Your task to perform on an android device: toggle translation in the chrome app Image 0: 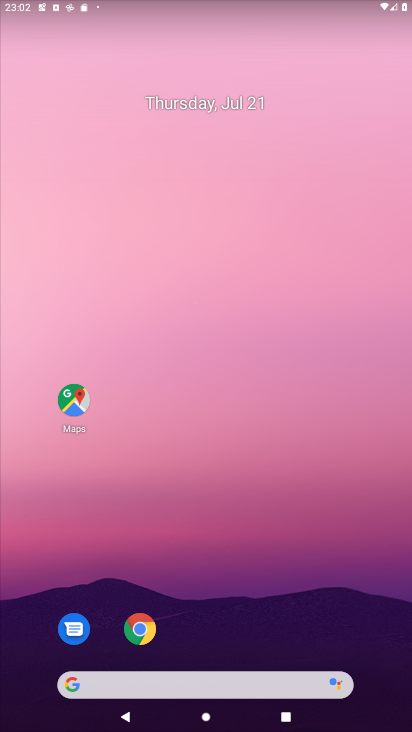
Step 0: drag from (303, 518) to (270, 88)
Your task to perform on an android device: toggle translation in the chrome app Image 1: 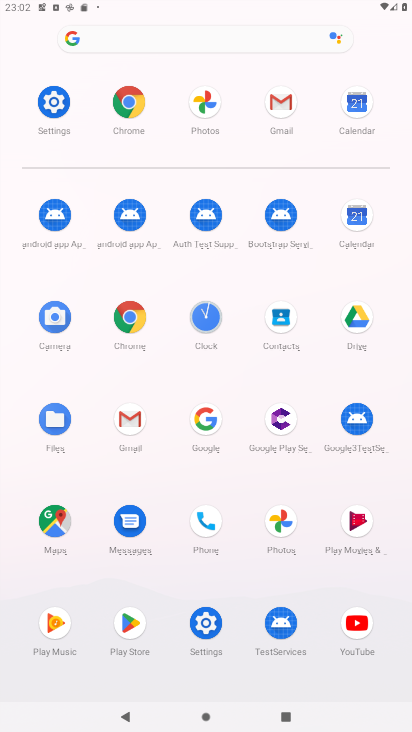
Step 1: click (141, 303)
Your task to perform on an android device: toggle translation in the chrome app Image 2: 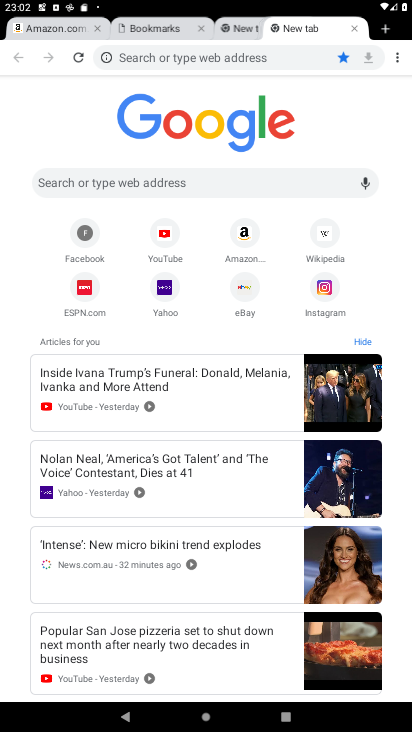
Step 2: click (405, 55)
Your task to perform on an android device: toggle translation in the chrome app Image 3: 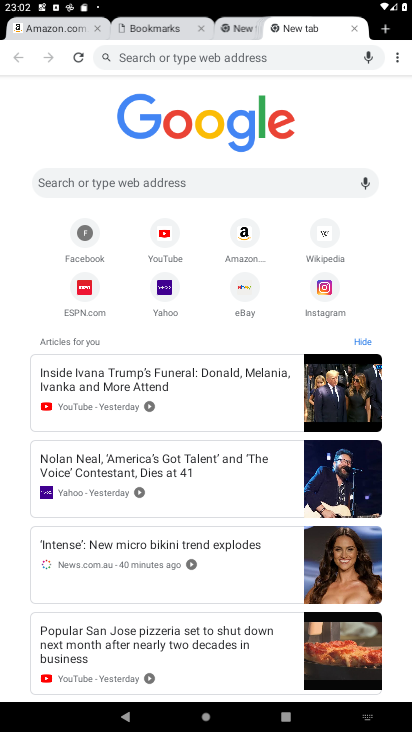
Step 3: click (404, 56)
Your task to perform on an android device: toggle translation in the chrome app Image 4: 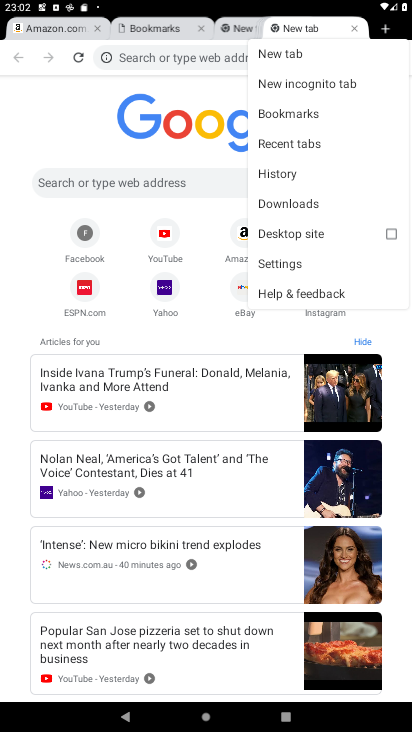
Step 4: click (283, 260)
Your task to perform on an android device: toggle translation in the chrome app Image 5: 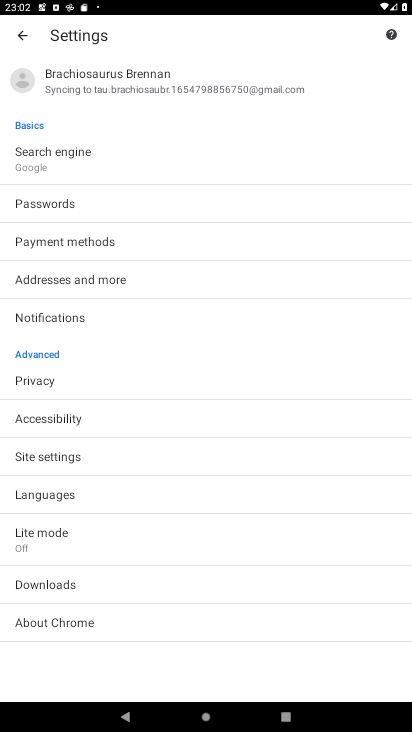
Step 5: click (121, 496)
Your task to perform on an android device: toggle translation in the chrome app Image 6: 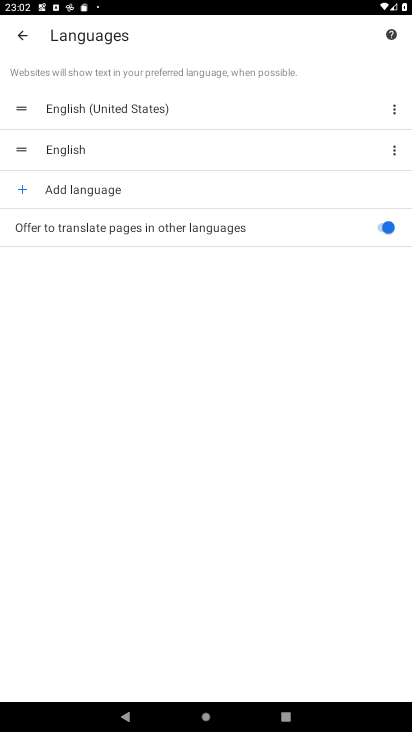
Step 6: click (405, 225)
Your task to perform on an android device: toggle translation in the chrome app Image 7: 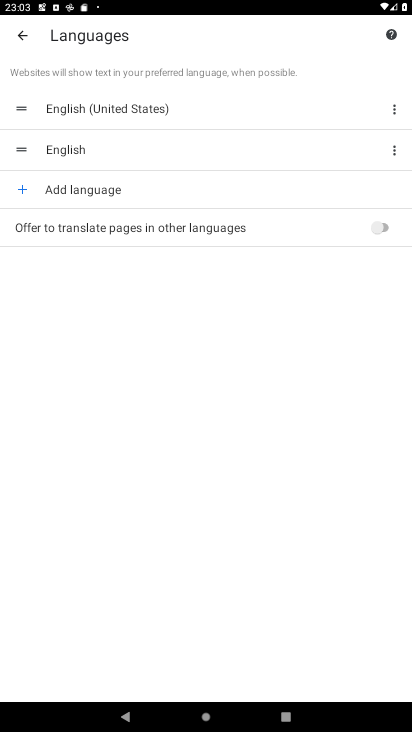
Step 7: task complete